Your task to perform on an android device: delete browsing data in the chrome app Image 0: 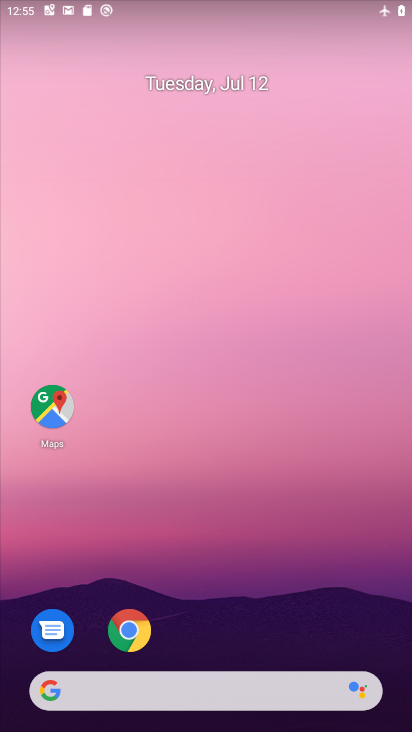
Step 0: drag from (208, 605) to (349, 388)
Your task to perform on an android device: delete browsing data in the chrome app Image 1: 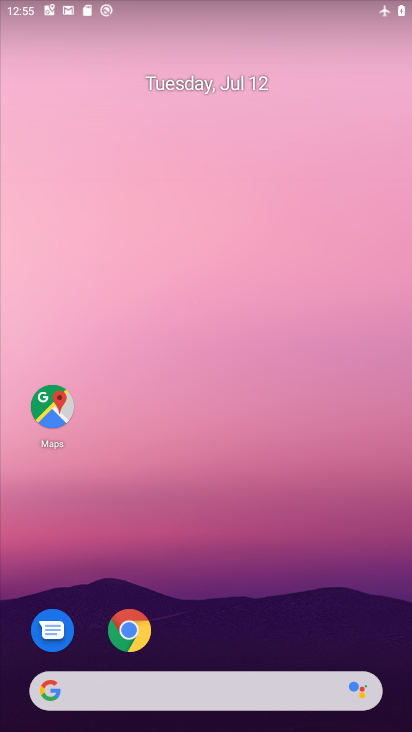
Step 1: click (138, 641)
Your task to perform on an android device: delete browsing data in the chrome app Image 2: 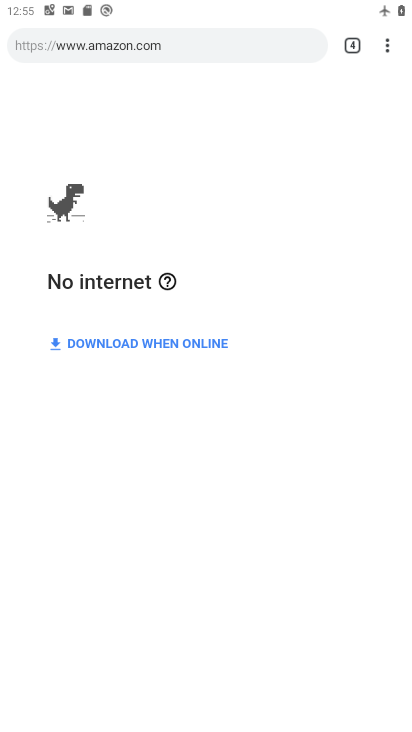
Step 2: click (387, 40)
Your task to perform on an android device: delete browsing data in the chrome app Image 3: 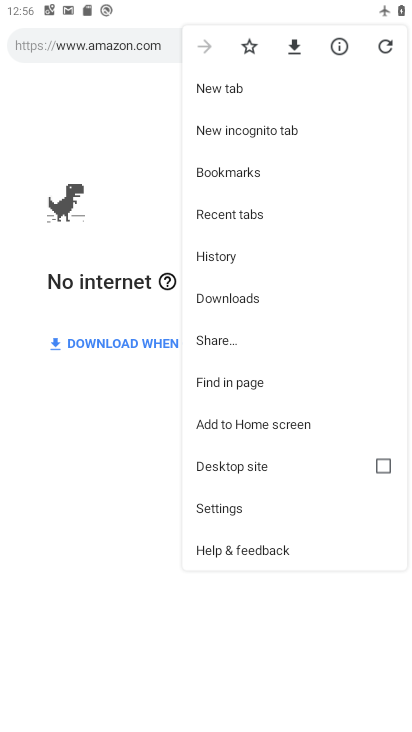
Step 3: click (227, 504)
Your task to perform on an android device: delete browsing data in the chrome app Image 4: 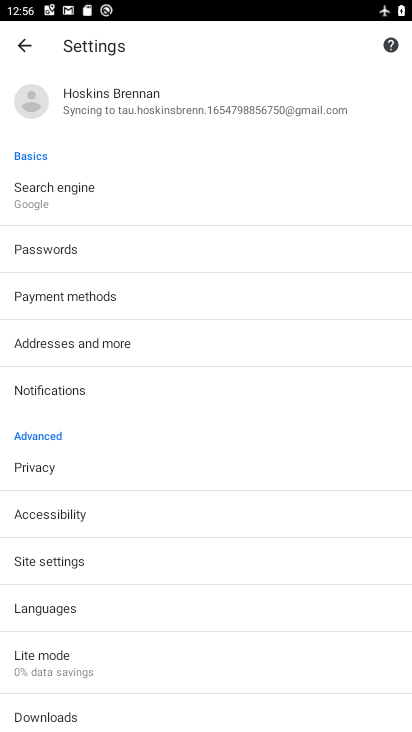
Step 4: click (26, 39)
Your task to perform on an android device: delete browsing data in the chrome app Image 5: 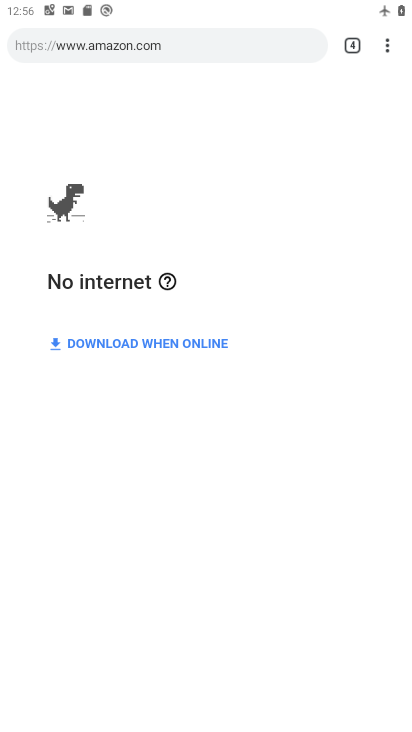
Step 5: click (385, 51)
Your task to perform on an android device: delete browsing data in the chrome app Image 6: 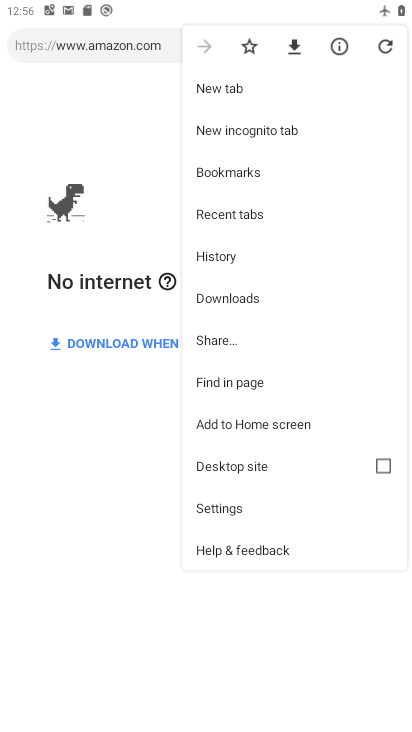
Step 6: click (229, 251)
Your task to perform on an android device: delete browsing data in the chrome app Image 7: 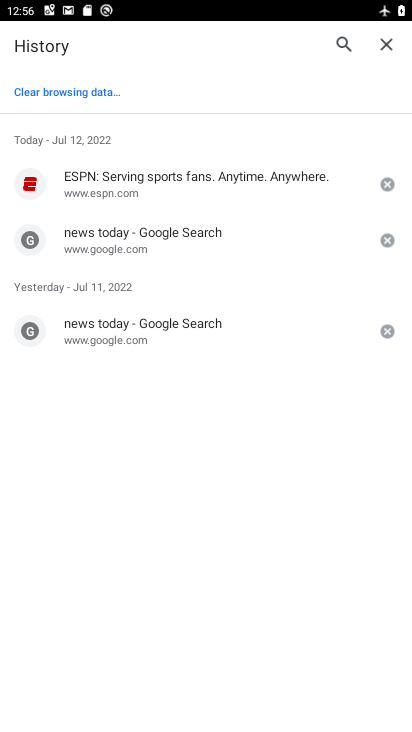
Step 7: click (84, 90)
Your task to perform on an android device: delete browsing data in the chrome app Image 8: 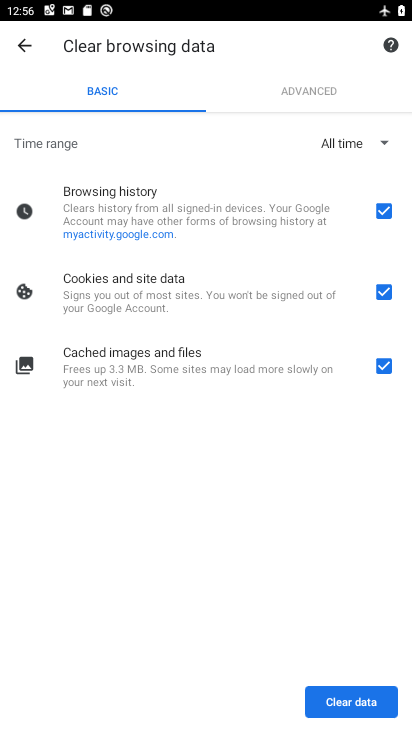
Step 8: click (383, 293)
Your task to perform on an android device: delete browsing data in the chrome app Image 9: 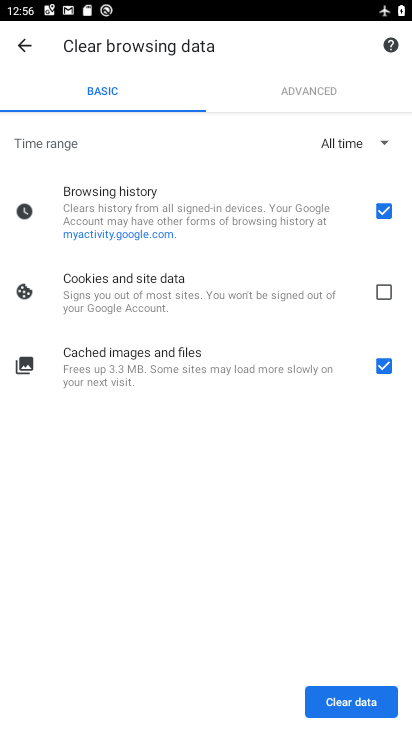
Step 9: click (383, 364)
Your task to perform on an android device: delete browsing data in the chrome app Image 10: 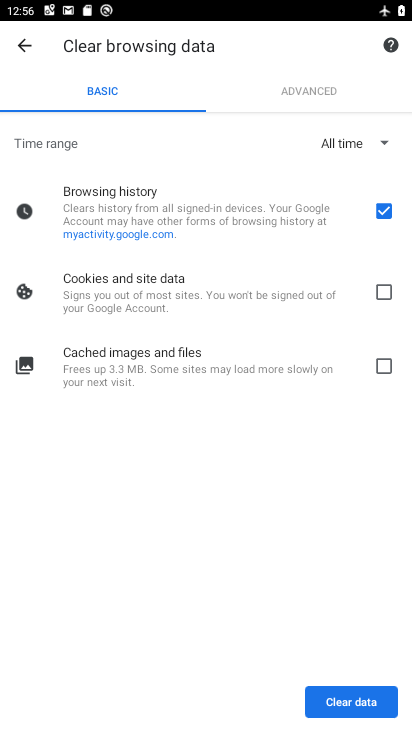
Step 10: click (344, 715)
Your task to perform on an android device: delete browsing data in the chrome app Image 11: 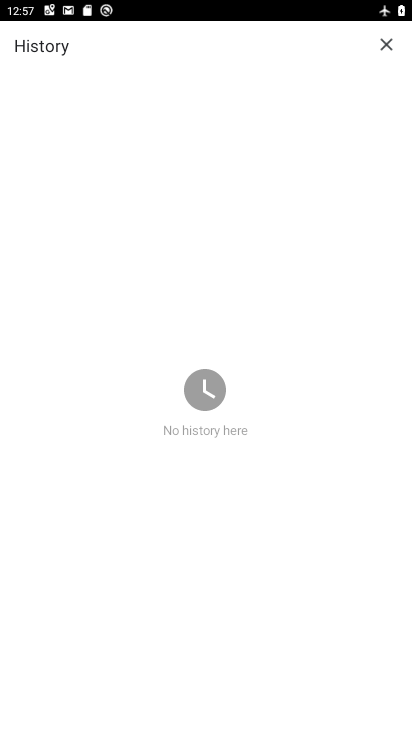
Step 11: task complete